Your task to perform on an android device: change timer sound Image 0: 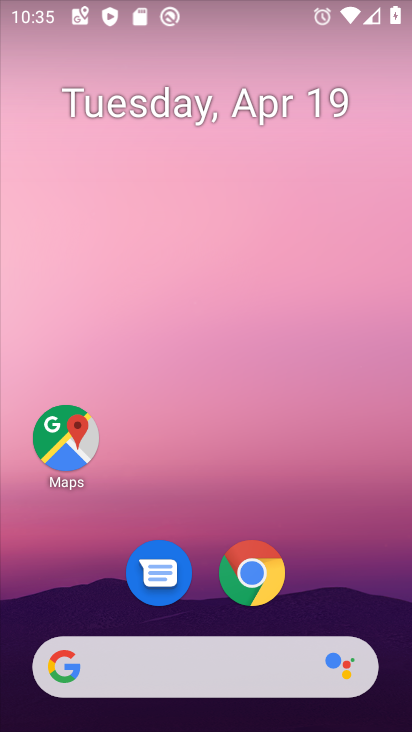
Step 0: drag from (332, 609) to (289, 106)
Your task to perform on an android device: change timer sound Image 1: 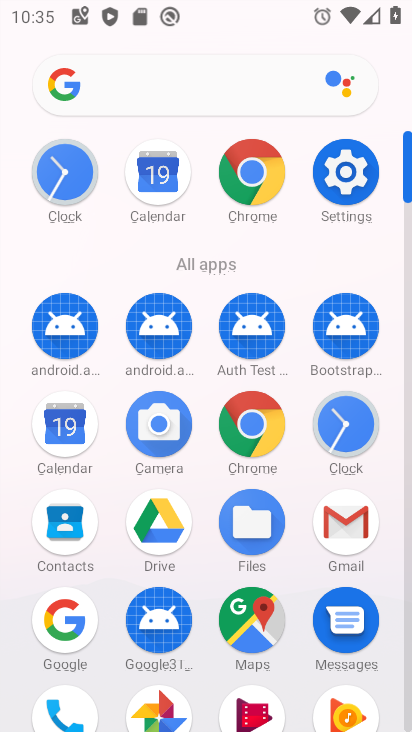
Step 1: click (345, 426)
Your task to perform on an android device: change timer sound Image 2: 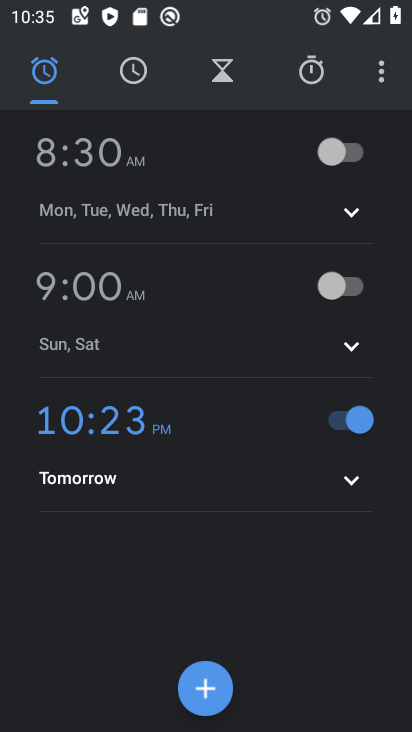
Step 2: click (387, 62)
Your task to perform on an android device: change timer sound Image 3: 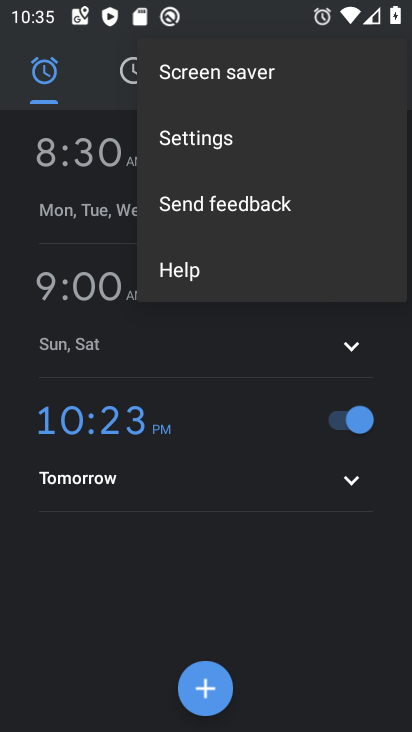
Step 3: click (165, 139)
Your task to perform on an android device: change timer sound Image 4: 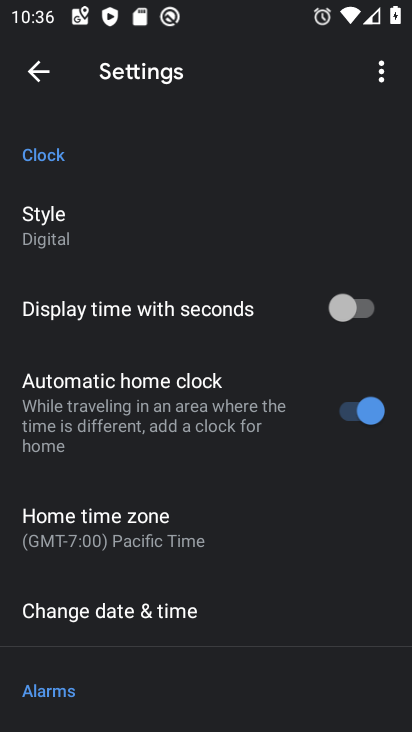
Step 4: drag from (129, 508) to (116, 163)
Your task to perform on an android device: change timer sound Image 5: 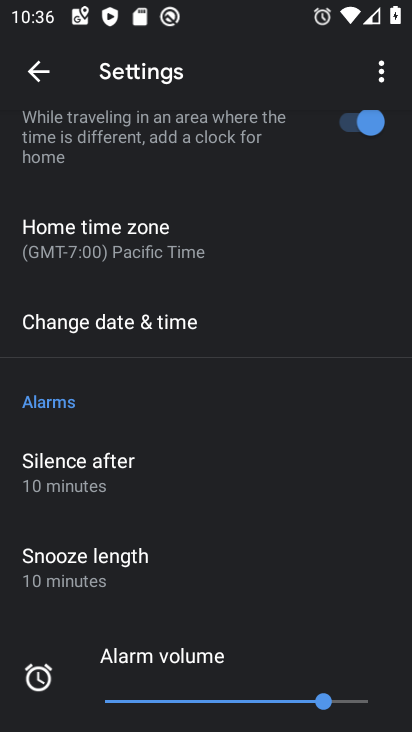
Step 5: drag from (136, 638) to (120, 221)
Your task to perform on an android device: change timer sound Image 6: 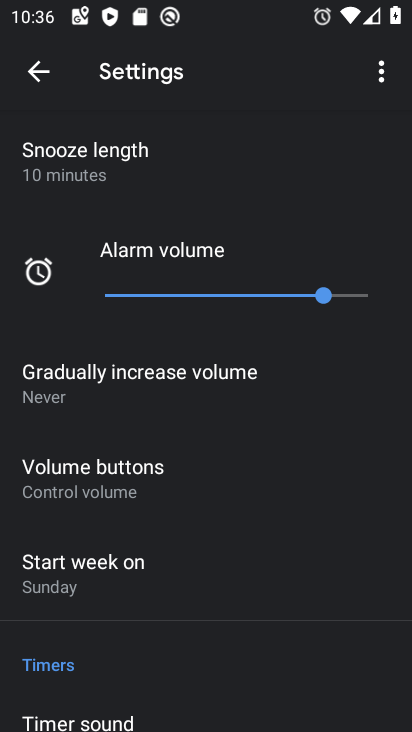
Step 6: drag from (104, 656) to (91, 261)
Your task to perform on an android device: change timer sound Image 7: 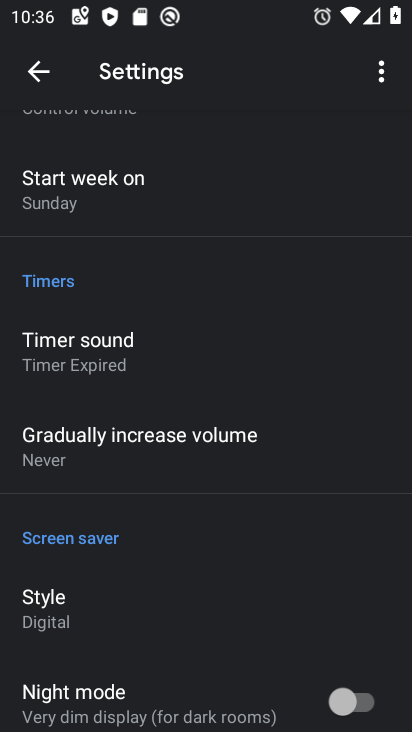
Step 7: click (87, 358)
Your task to perform on an android device: change timer sound Image 8: 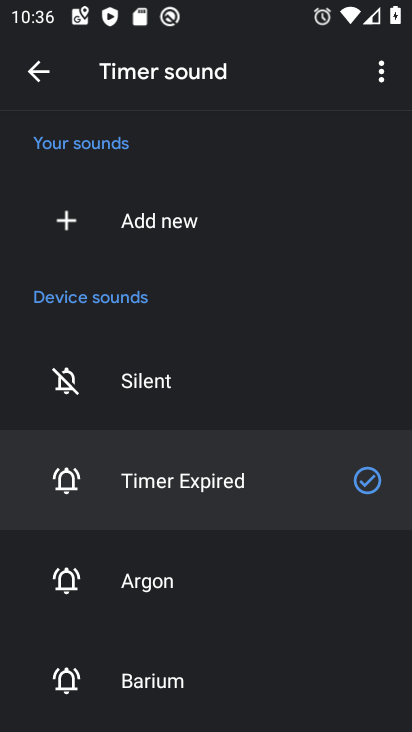
Step 8: click (157, 685)
Your task to perform on an android device: change timer sound Image 9: 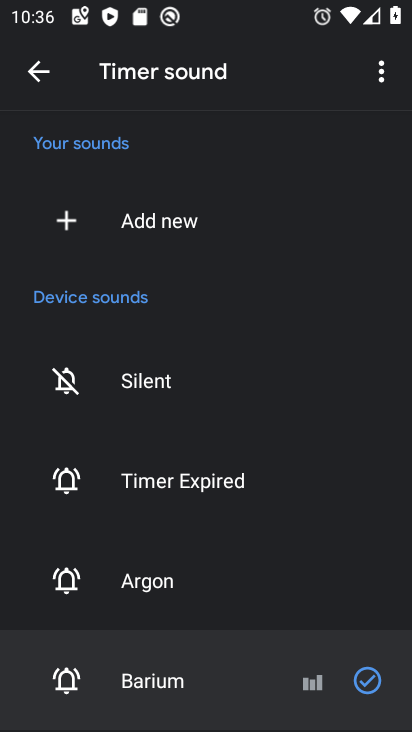
Step 9: task complete